Your task to perform on an android device: turn on showing notifications on the lock screen Image 0: 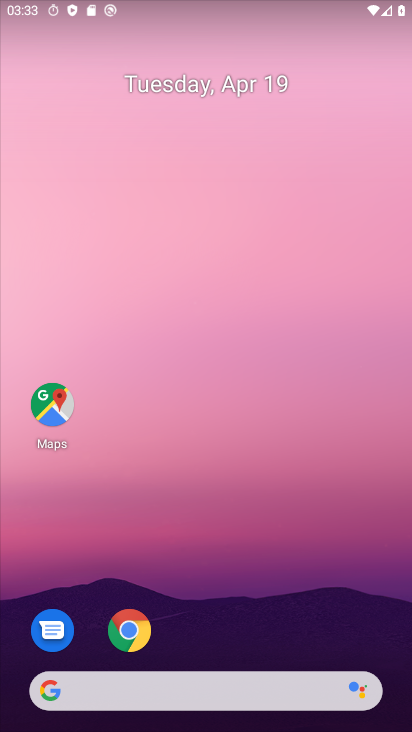
Step 0: drag from (234, 654) to (209, 67)
Your task to perform on an android device: turn on showing notifications on the lock screen Image 1: 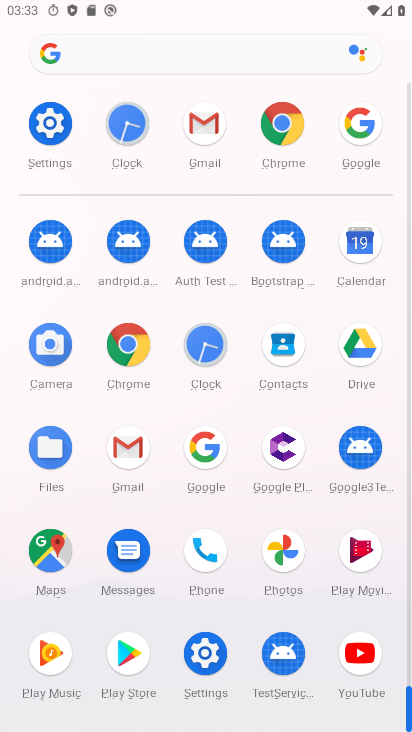
Step 1: click (60, 124)
Your task to perform on an android device: turn on showing notifications on the lock screen Image 2: 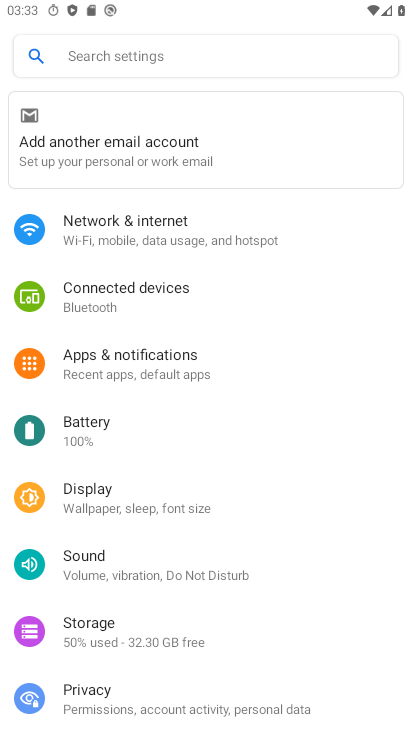
Step 2: click (148, 360)
Your task to perform on an android device: turn on showing notifications on the lock screen Image 3: 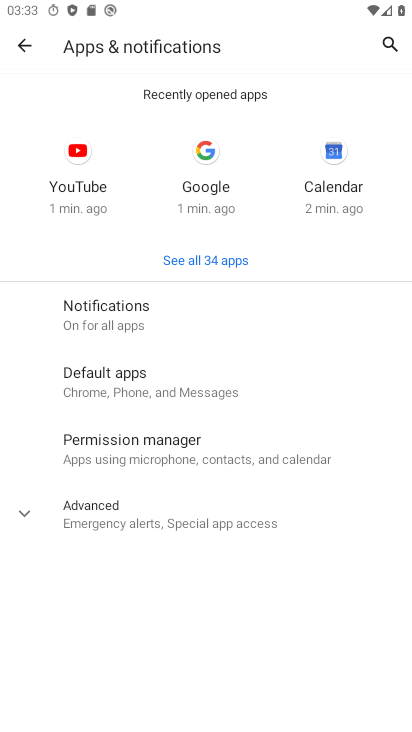
Step 3: click (117, 306)
Your task to perform on an android device: turn on showing notifications on the lock screen Image 4: 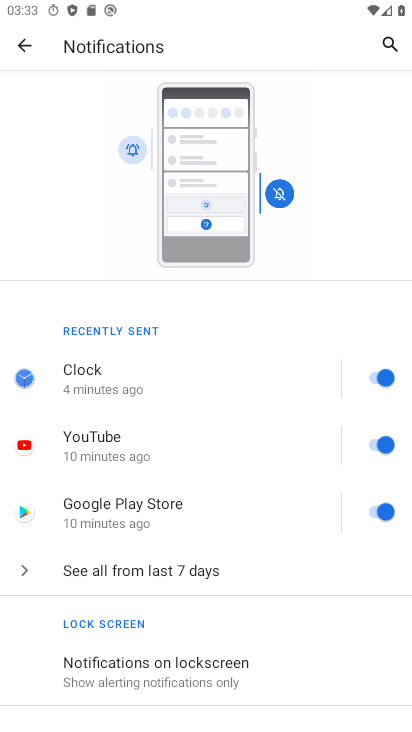
Step 4: drag from (110, 570) to (113, 211)
Your task to perform on an android device: turn on showing notifications on the lock screen Image 5: 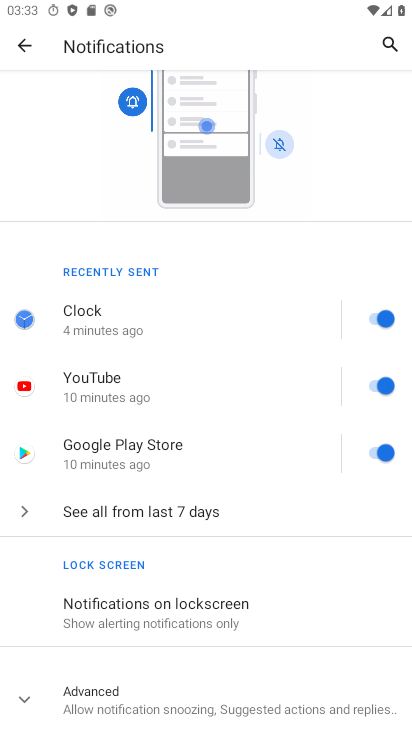
Step 5: click (113, 623)
Your task to perform on an android device: turn on showing notifications on the lock screen Image 6: 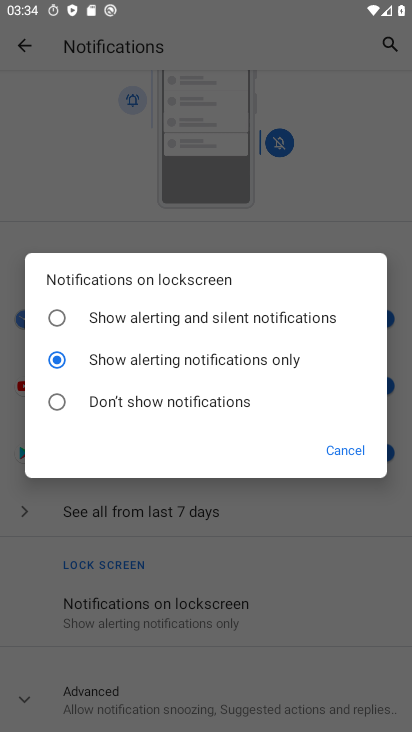
Step 6: click (178, 317)
Your task to perform on an android device: turn on showing notifications on the lock screen Image 7: 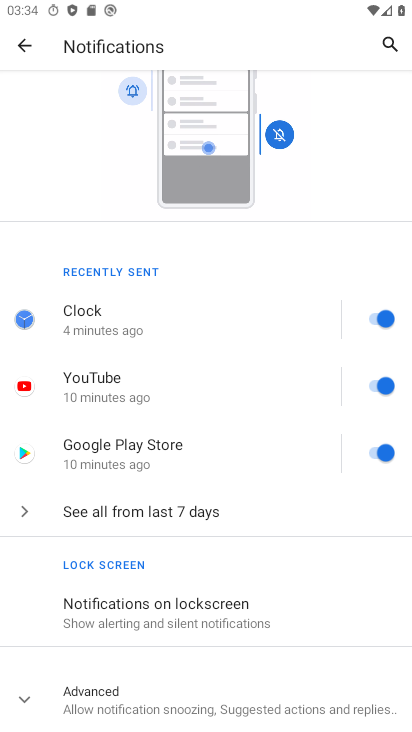
Step 7: task complete